Your task to perform on an android device: turn on notifications settings in the gmail app Image 0: 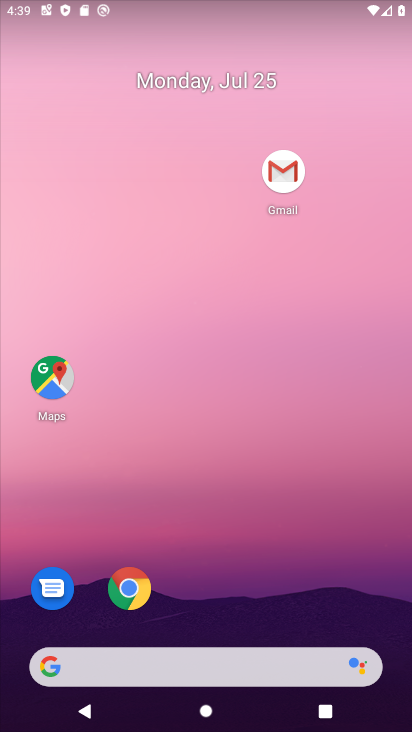
Step 0: drag from (279, 574) to (337, 33)
Your task to perform on an android device: turn on notifications settings in the gmail app Image 1: 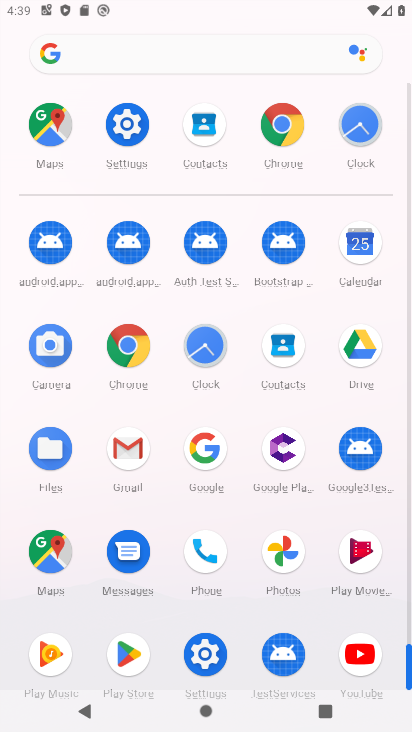
Step 1: click (138, 463)
Your task to perform on an android device: turn on notifications settings in the gmail app Image 2: 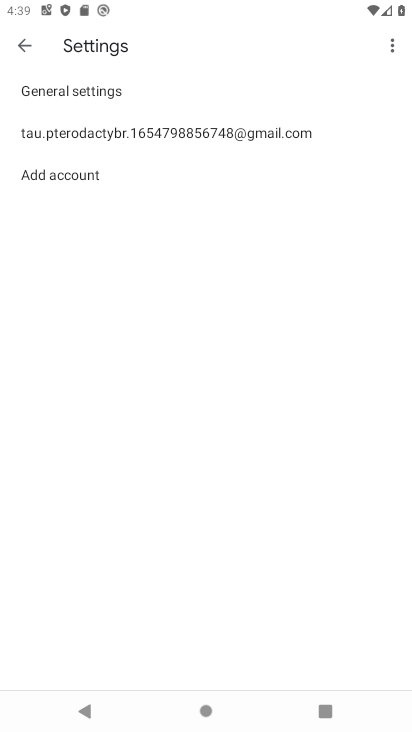
Step 2: click (118, 140)
Your task to perform on an android device: turn on notifications settings in the gmail app Image 3: 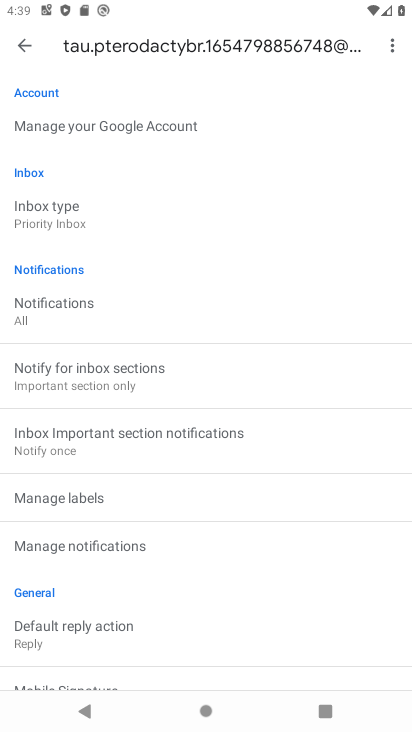
Step 3: click (97, 538)
Your task to perform on an android device: turn on notifications settings in the gmail app Image 4: 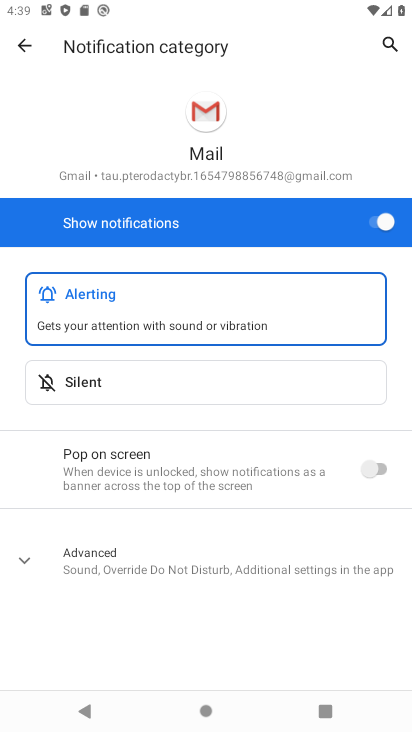
Step 4: task complete